Your task to perform on an android device: Go to notification settings Image 0: 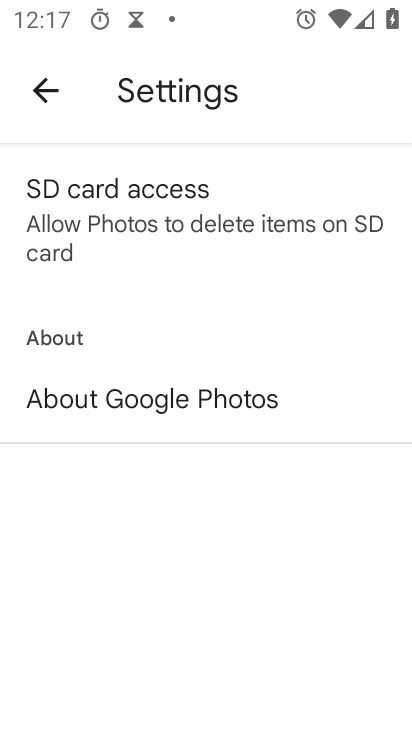
Step 0: press home button
Your task to perform on an android device: Go to notification settings Image 1: 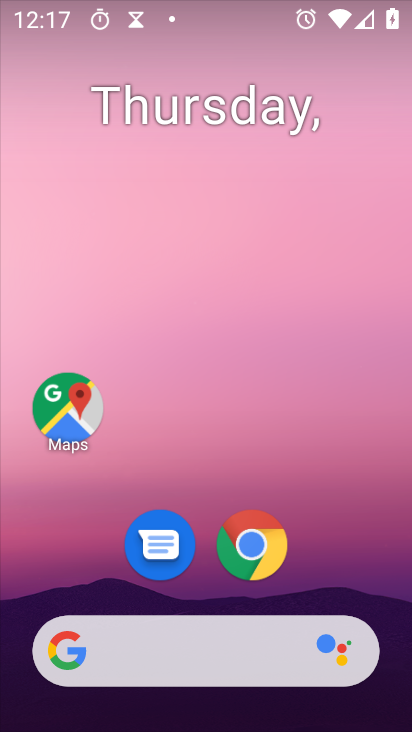
Step 1: drag from (156, 659) to (296, 142)
Your task to perform on an android device: Go to notification settings Image 2: 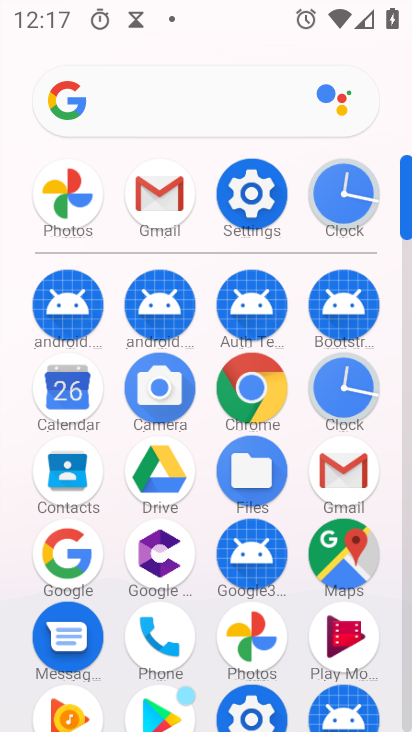
Step 2: click (258, 188)
Your task to perform on an android device: Go to notification settings Image 3: 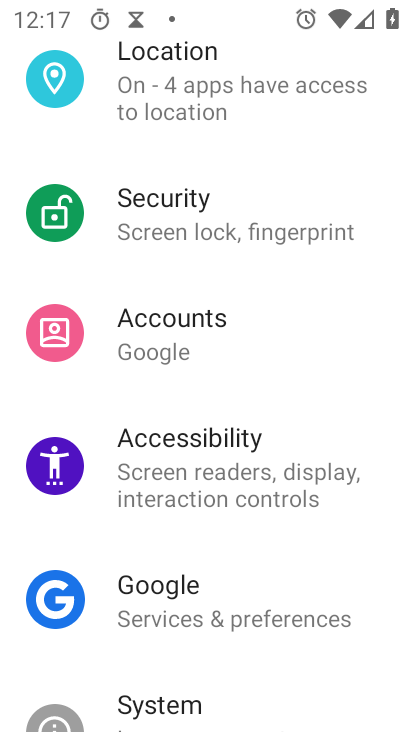
Step 3: drag from (331, 161) to (274, 674)
Your task to perform on an android device: Go to notification settings Image 4: 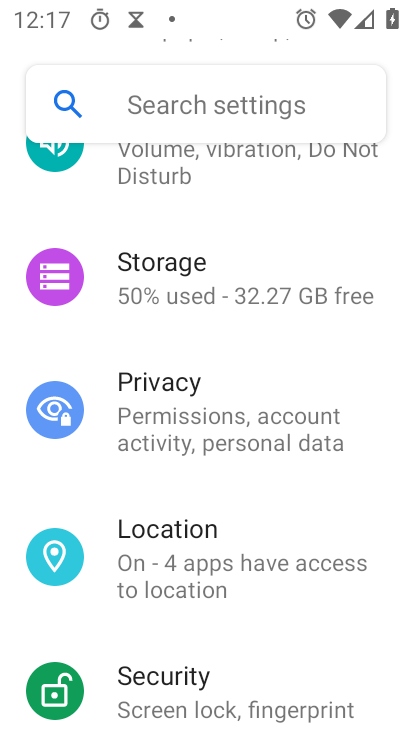
Step 4: drag from (289, 244) to (210, 709)
Your task to perform on an android device: Go to notification settings Image 5: 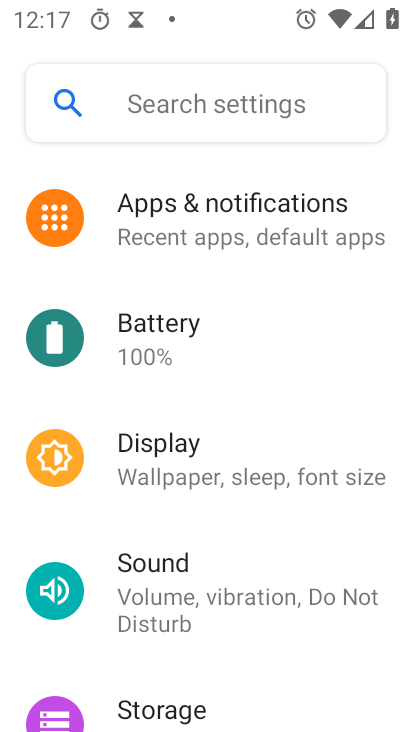
Step 5: click (243, 224)
Your task to perform on an android device: Go to notification settings Image 6: 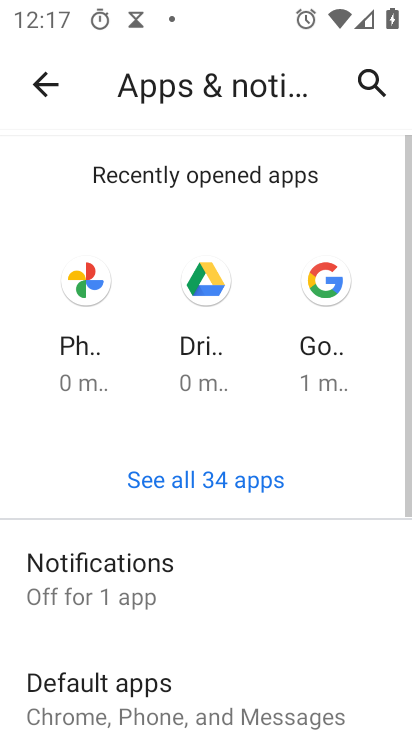
Step 6: drag from (240, 613) to (315, 248)
Your task to perform on an android device: Go to notification settings Image 7: 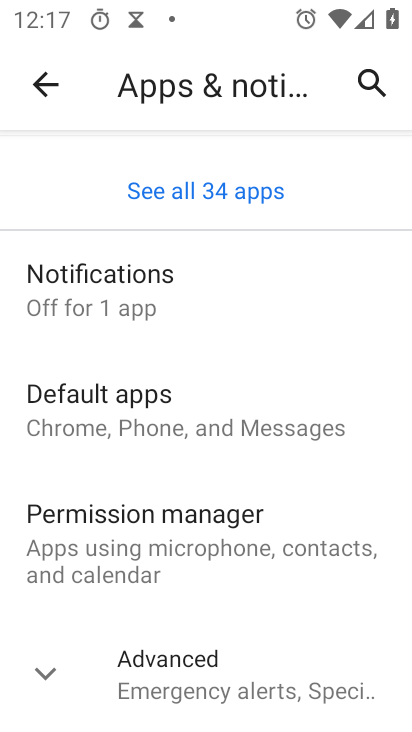
Step 7: click (148, 290)
Your task to perform on an android device: Go to notification settings Image 8: 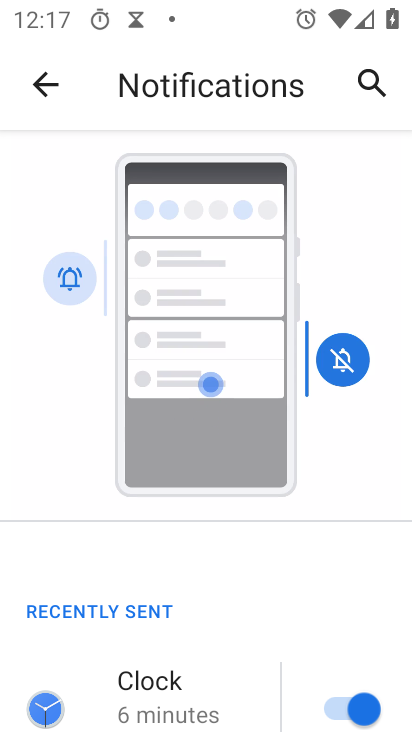
Step 8: task complete